Your task to perform on an android device: choose inbox layout in the gmail app Image 0: 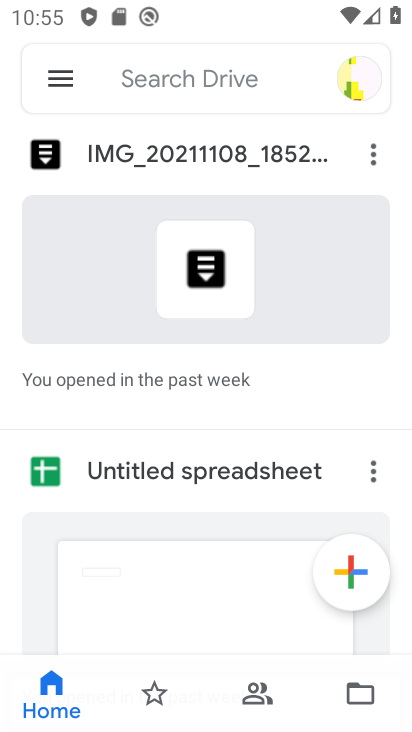
Step 0: press home button
Your task to perform on an android device: choose inbox layout in the gmail app Image 1: 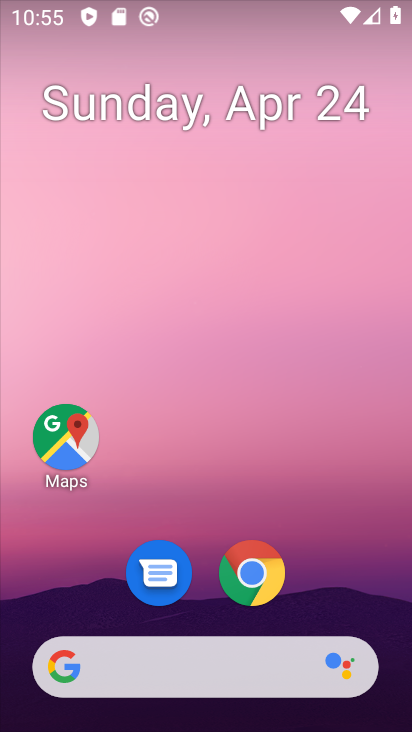
Step 1: drag from (316, 571) to (281, 52)
Your task to perform on an android device: choose inbox layout in the gmail app Image 2: 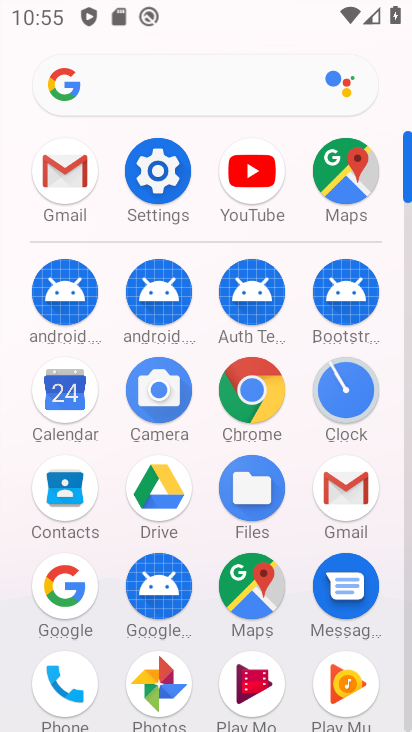
Step 2: click (50, 166)
Your task to perform on an android device: choose inbox layout in the gmail app Image 3: 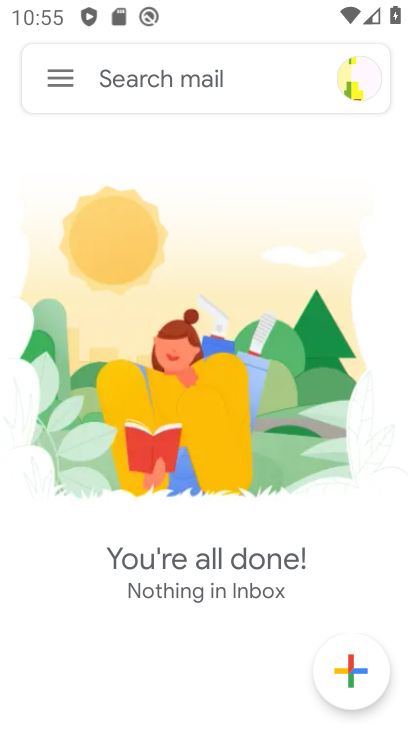
Step 3: click (61, 70)
Your task to perform on an android device: choose inbox layout in the gmail app Image 4: 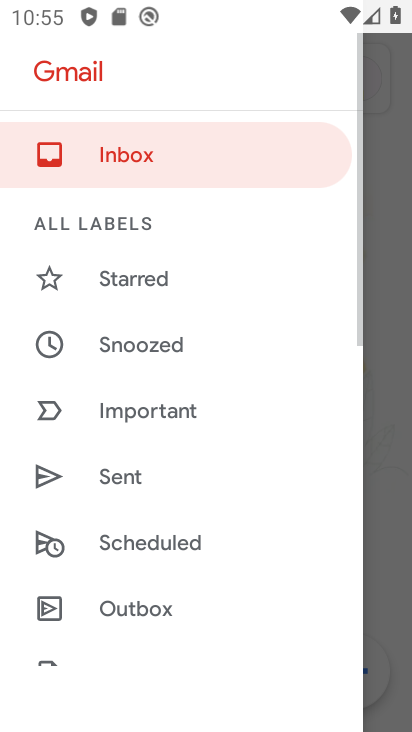
Step 4: drag from (145, 385) to (141, 289)
Your task to perform on an android device: choose inbox layout in the gmail app Image 5: 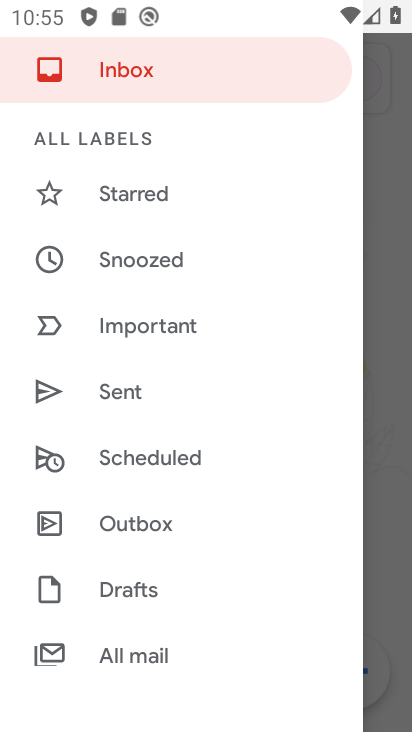
Step 5: drag from (147, 497) to (145, 410)
Your task to perform on an android device: choose inbox layout in the gmail app Image 6: 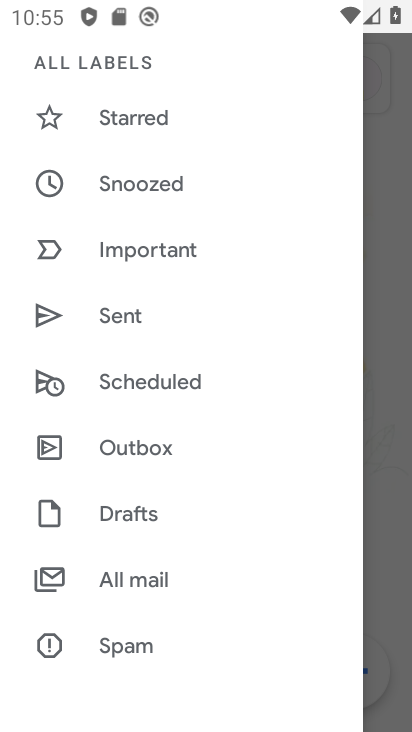
Step 6: drag from (156, 548) to (156, 434)
Your task to perform on an android device: choose inbox layout in the gmail app Image 7: 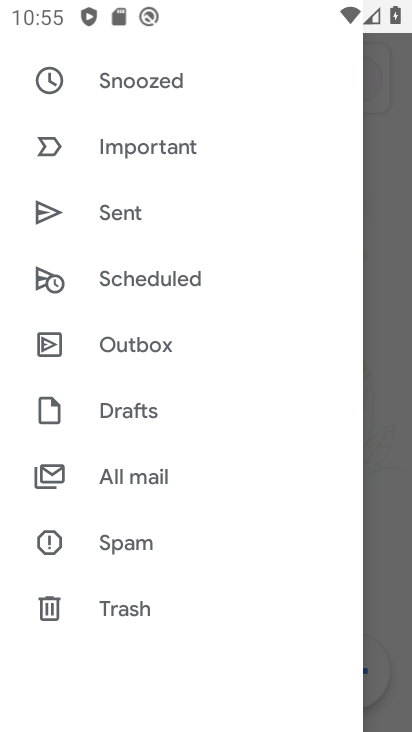
Step 7: drag from (146, 553) to (138, 462)
Your task to perform on an android device: choose inbox layout in the gmail app Image 8: 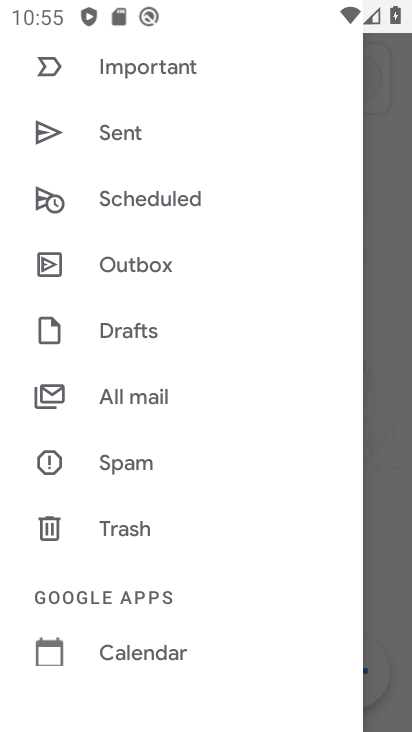
Step 8: drag from (163, 585) to (143, 472)
Your task to perform on an android device: choose inbox layout in the gmail app Image 9: 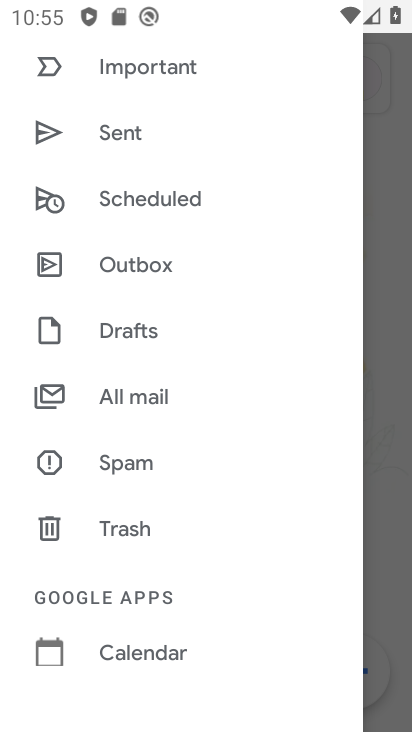
Step 9: drag from (143, 594) to (136, 506)
Your task to perform on an android device: choose inbox layout in the gmail app Image 10: 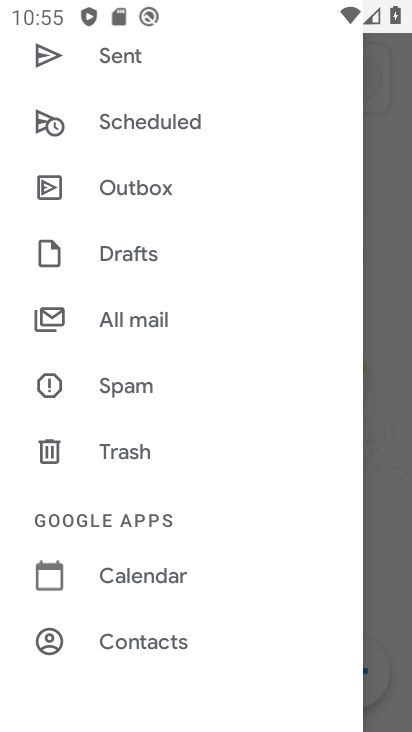
Step 10: drag from (137, 566) to (134, 486)
Your task to perform on an android device: choose inbox layout in the gmail app Image 11: 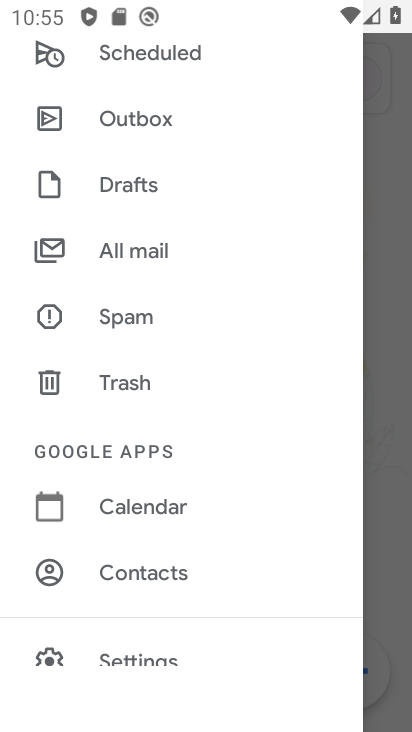
Step 11: drag from (140, 551) to (132, 479)
Your task to perform on an android device: choose inbox layout in the gmail app Image 12: 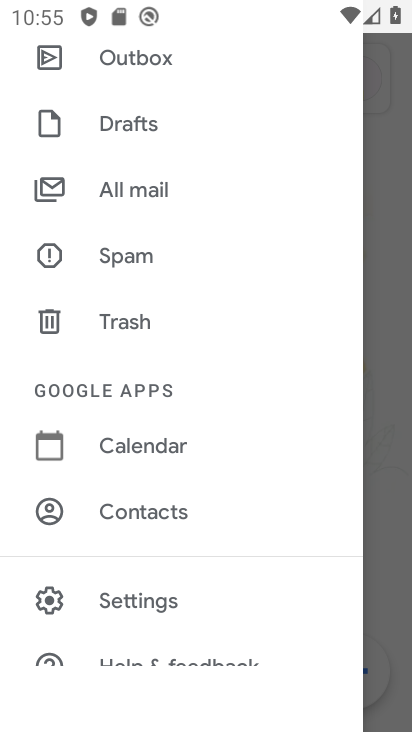
Step 12: click (146, 599)
Your task to perform on an android device: choose inbox layout in the gmail app Image 13: 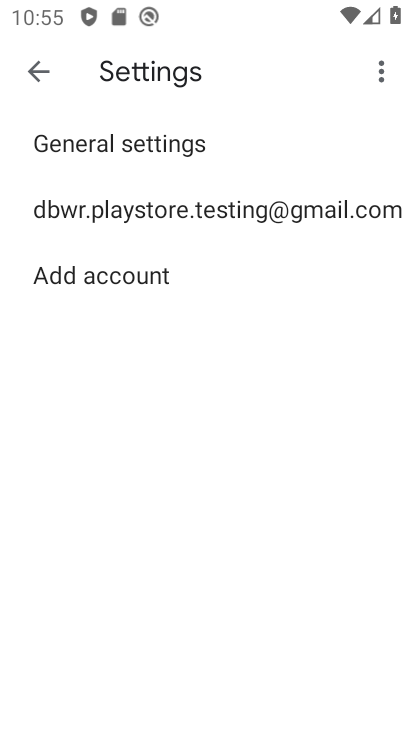
Step 13: click (235, 212)
Your task to perform on an android device: choose inbox layout in the gmail app Image 14: 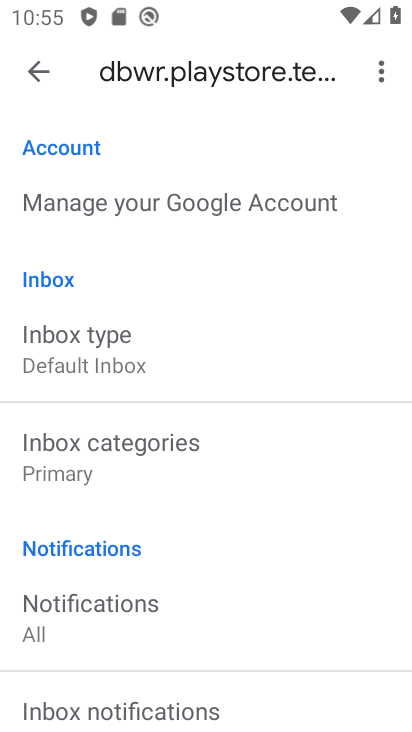
Step 14: click (102, 351)
Your task to perform on an android device: choose inbox layout in the gmail app Image 15: 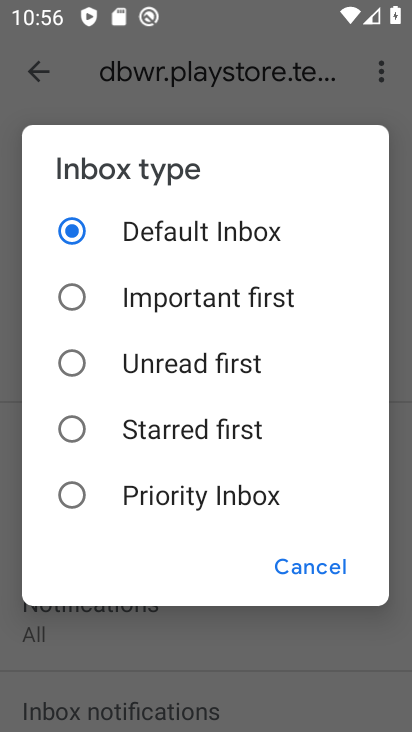
Step 15: click (89, 287)
Your task to perform on an android device: choose inbox layout in the gmail app Image 16: 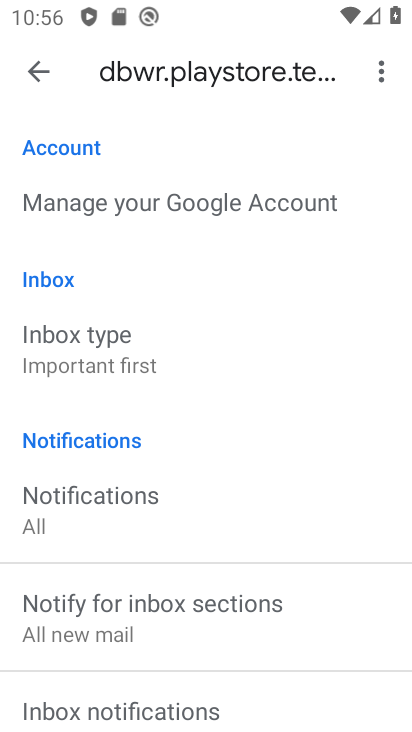
Step 16: task complete